Your task to perform on an android device: Check the weather Image 0: 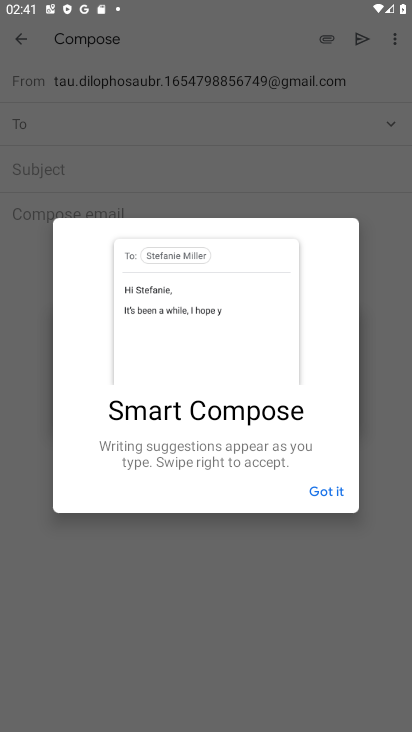
Step 0: press home button
Your task to perform on an android device: Check the weather Image 1: 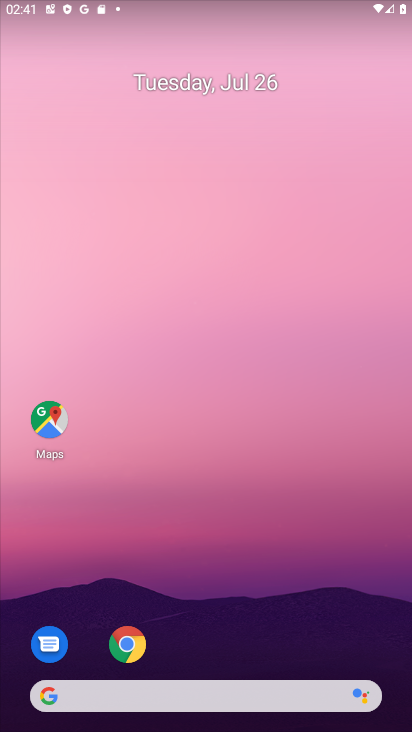
Step 1: click (160, 694)
Your task to perform on an android device: Check the weather Image 2: 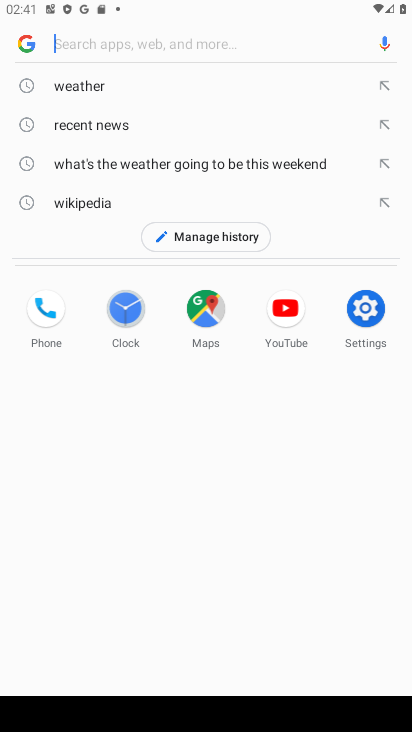
Step 2: click (116, 96)
Your task to perform on an android device: Check the weather Image 3: 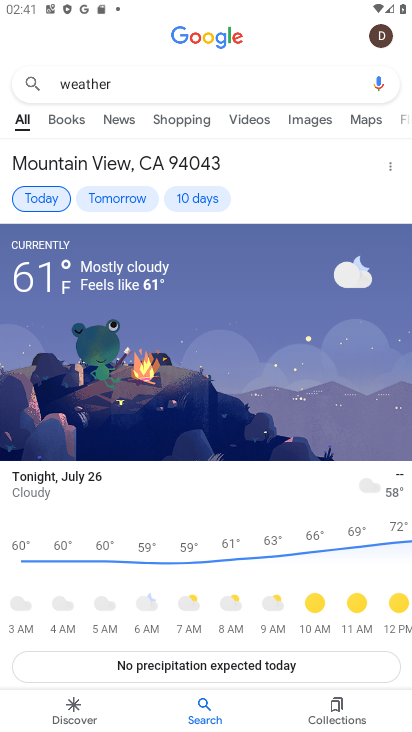
Step 3: task complete